Your task to perform on an android device: What's the weather? Image 0: 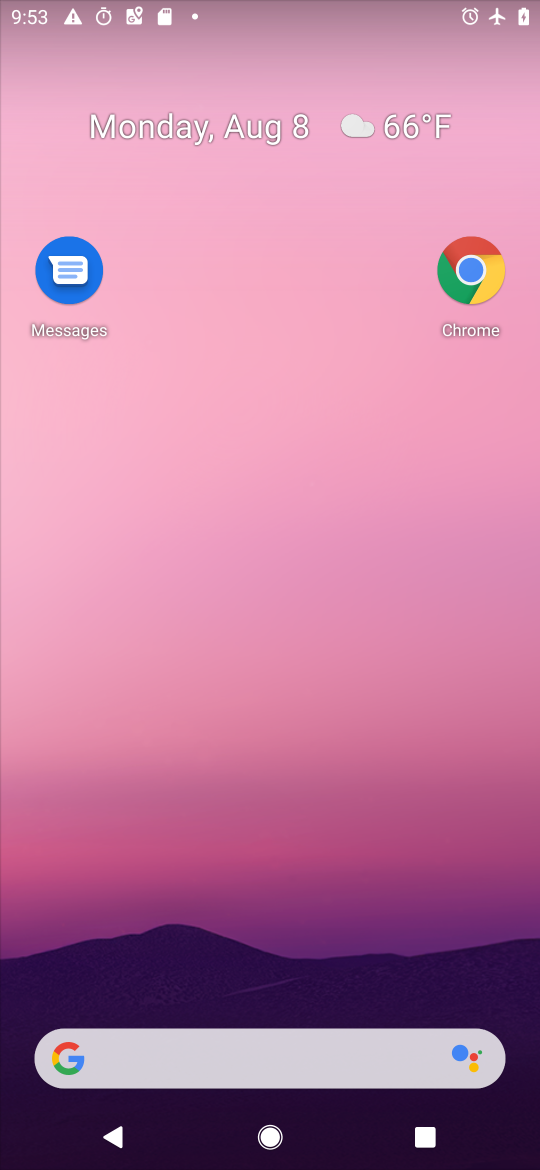
Step 0: drag from (274, 915) to (195, 17)
Your task to perform on an android device: What's the weather? Image 1: 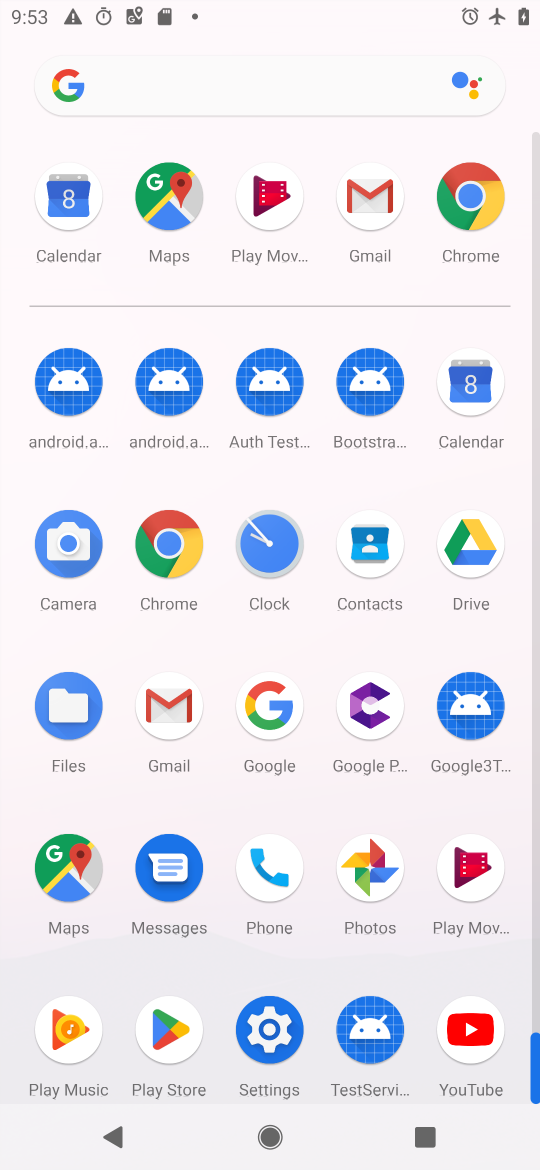
Step 1: click (193, 80)
Your task to perform on an android device: What's the weather? Image 2: 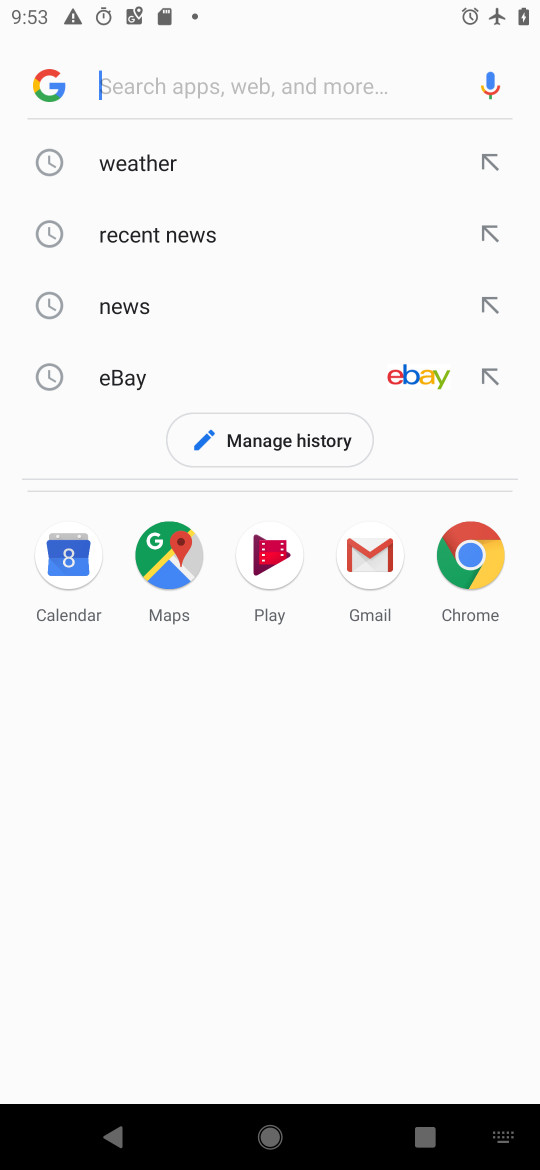
Step 2: type "weather?"
Your task to perform on an android device: What's the weather? Image 3: 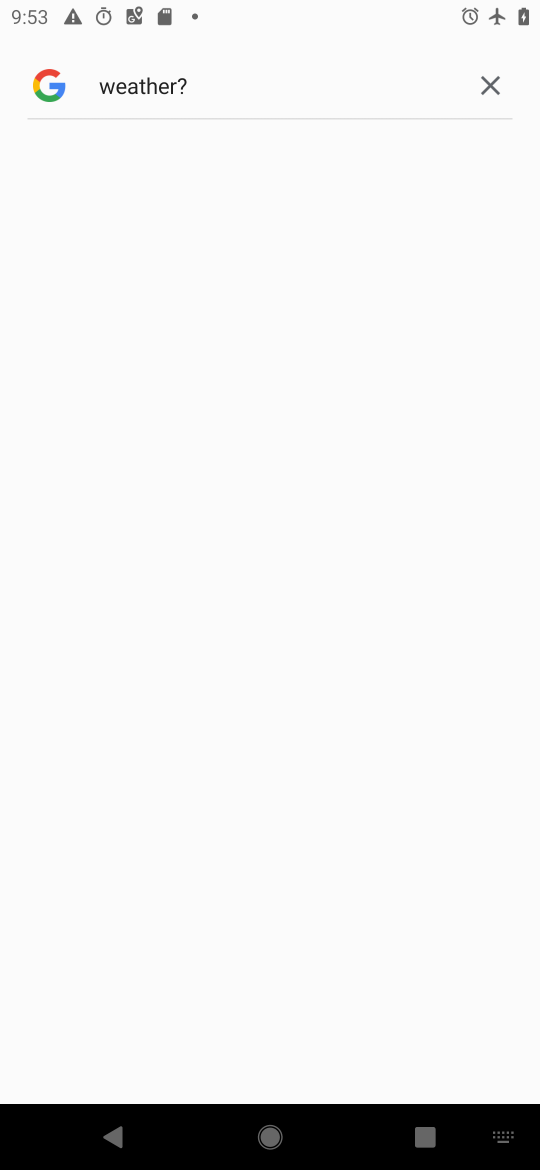
Step 3: click (138, 146)
Your task to perform on an android device: What's the weather? Image 4: 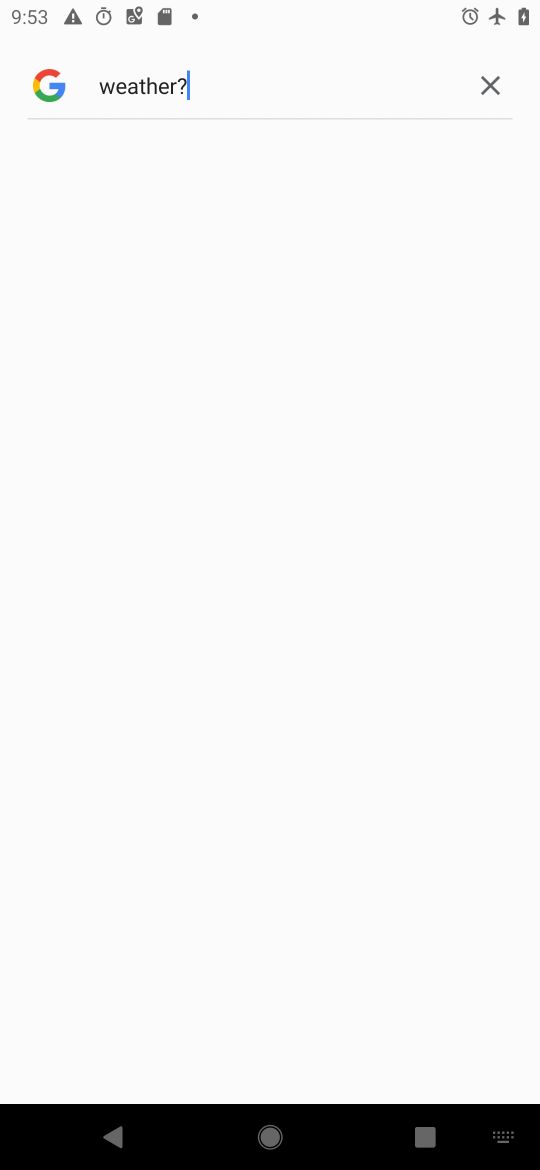
Step 4: click (143, 152)
Your task to perform on an android device: What's the weather? Image 5: 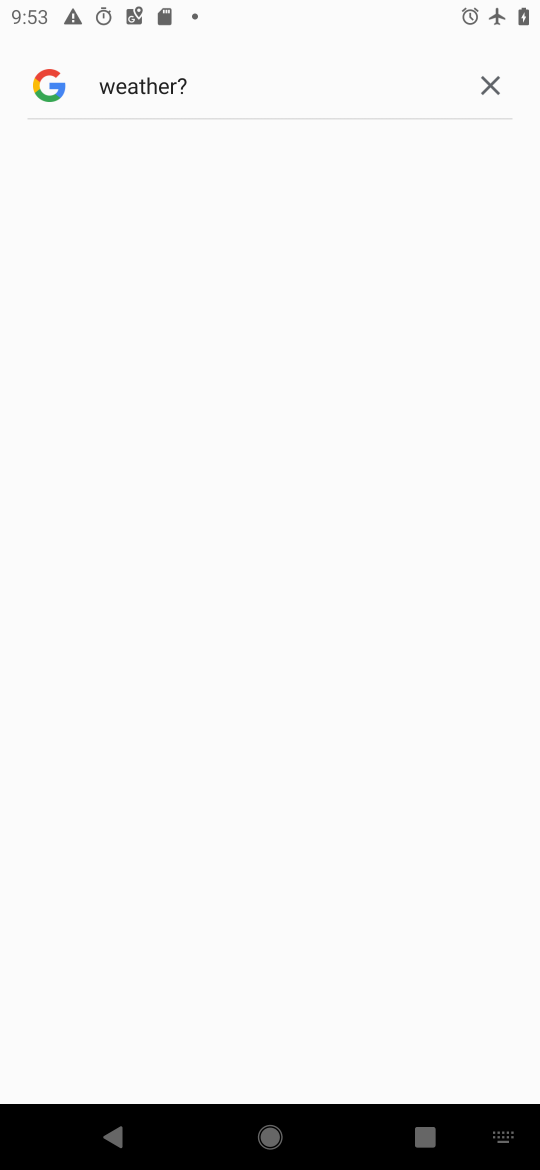
Step 5: click (188, 167)
Your task to perform on an android device: What's the weather? Image 6: 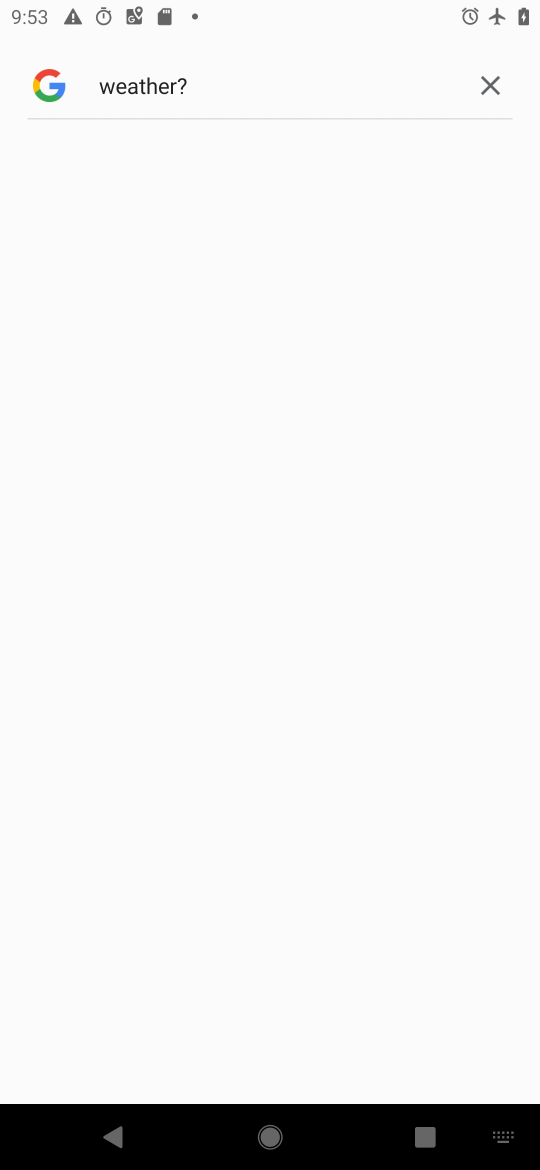
Step 6: click (276, 196)
Your task to perform on an android device: What's the weather? Image 7: 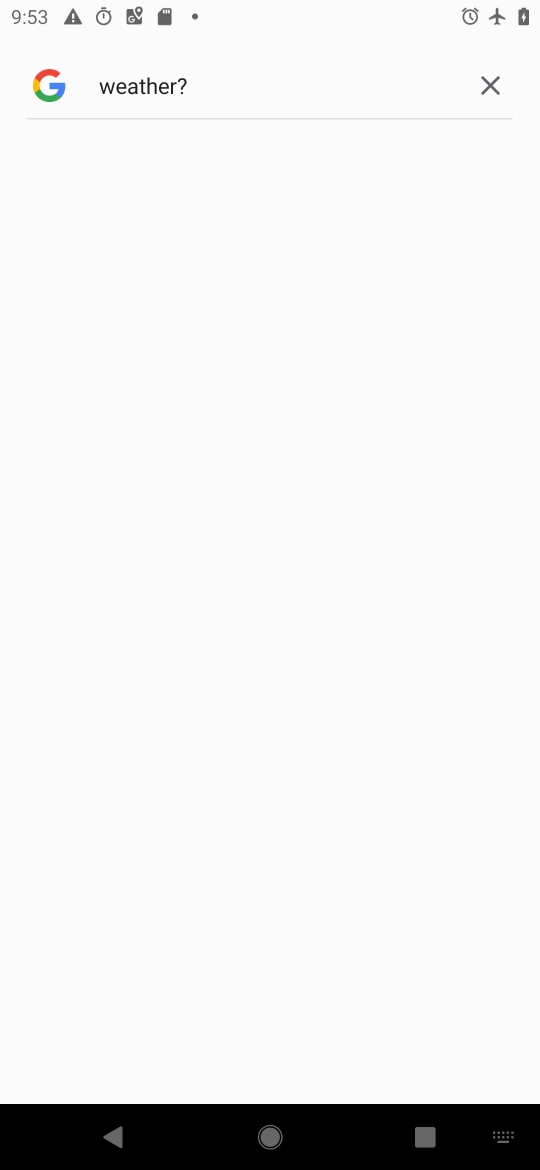
Step 7: task complete